Your task to perform on an android device: Toggle the flashlight Image 0: 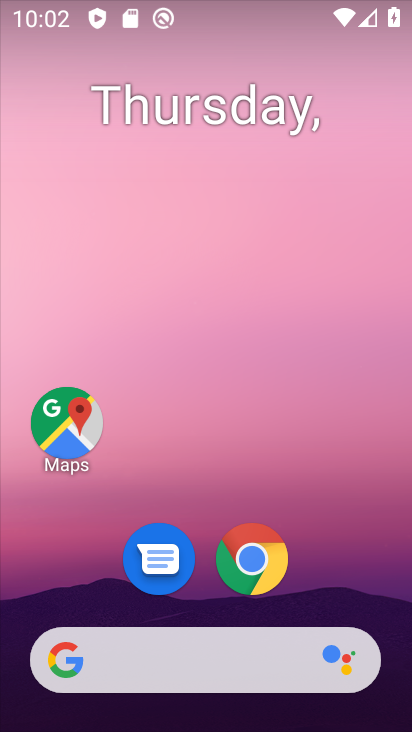
Step 0: drag from (261, 705) to (360, 24)
Your task to perform on an android device: Toggle the flashlight Image 1: 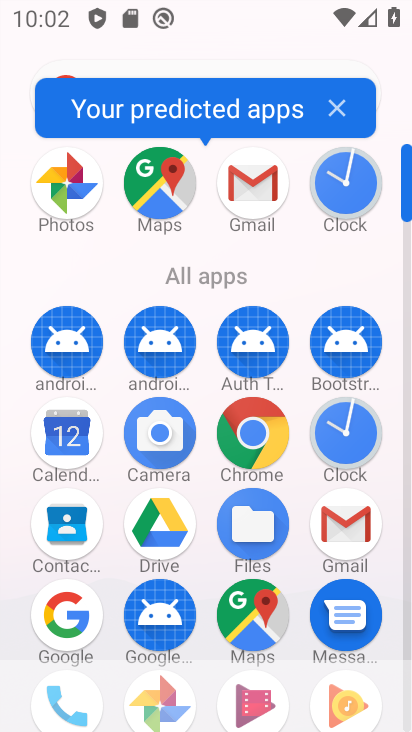
Step 1: drag from (120, 561) to (217, 288)
Your task to perform on an android device: Toggle the flashlight Image 2: 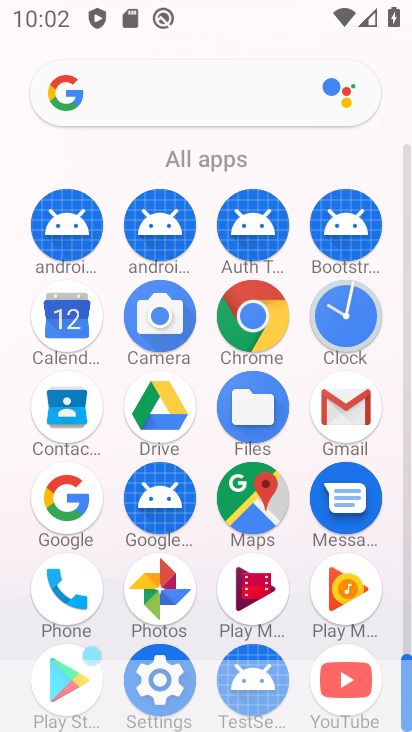
Step 2: click (171, 651)
Your task to perform on an android device: Toggle the flashlight Image 3: 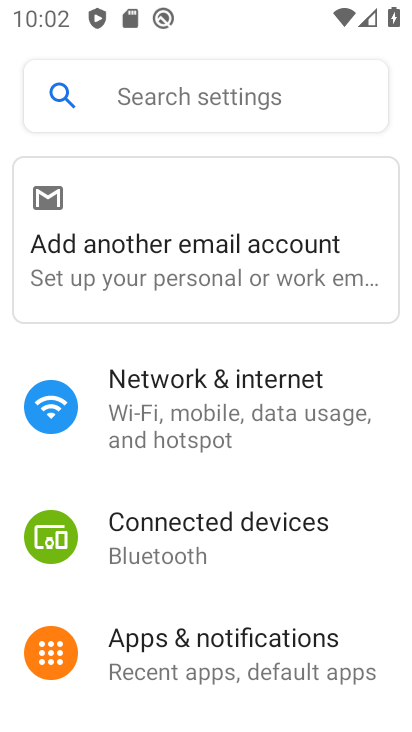
Step 3: click (216, 117)
Your task to perform on an android device: Toggle the flashlight Image 4: 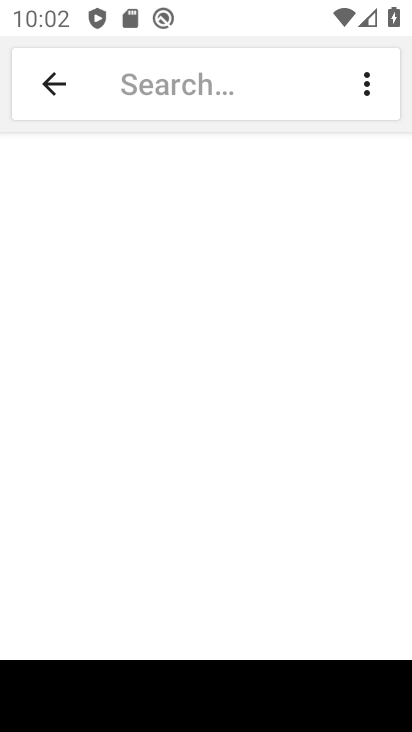
Step 4: drag from (397, 693) to (411, 619)
Your task to perform on an android device: Toggle the flashlight Image 5: 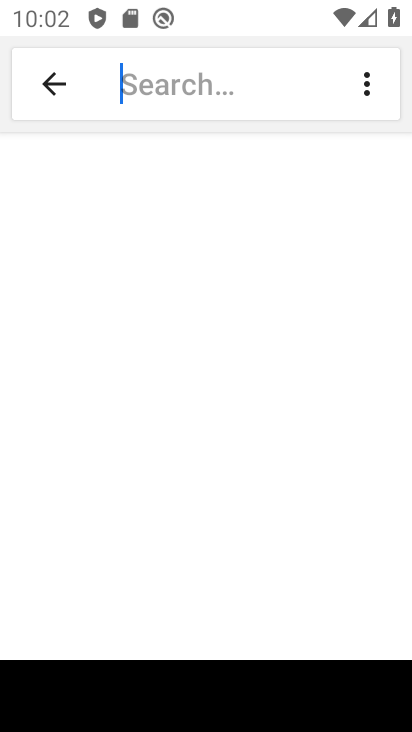
Step 5: drag from (388, 696) to (379, 558)
Your task to perform on an android device: Toggle the flashlight Image 6: 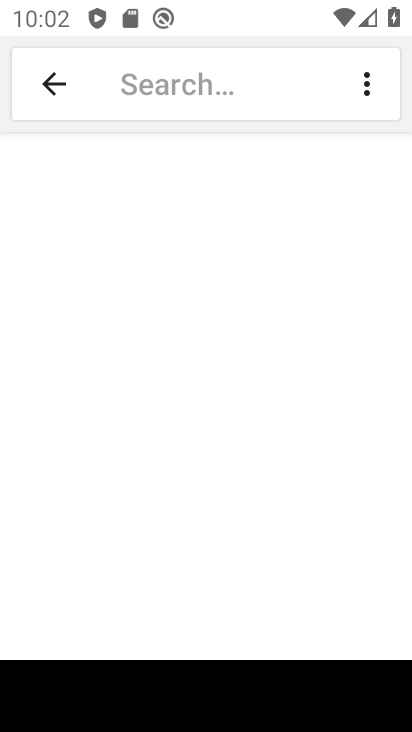
Step 6: click (392, 700)
Your task to perform on an android device: Toggle the flashlight Image 7: 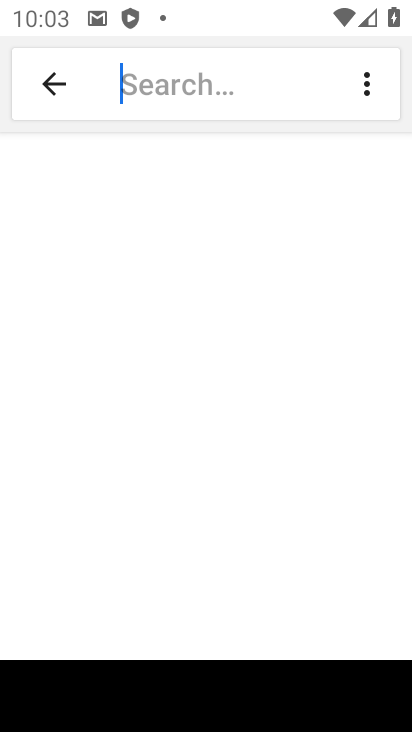
Step 7: click (164, 70)
Your task to perform on an android device: Toggle the flashlight Image 8: 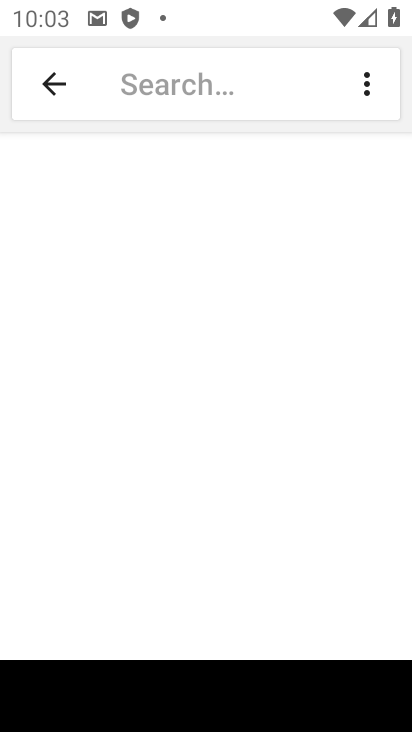
Step 8: drag from (386, 709) to (379, 535)
Your task to perform on an android device: Toggle the flashlight Image 9: 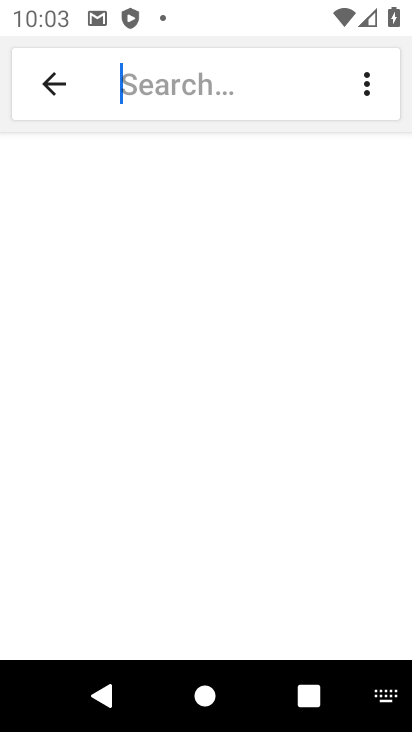
Step 9: click (383, 699)
Your task to perform on an android device: Toggle the flashlight Image 10: 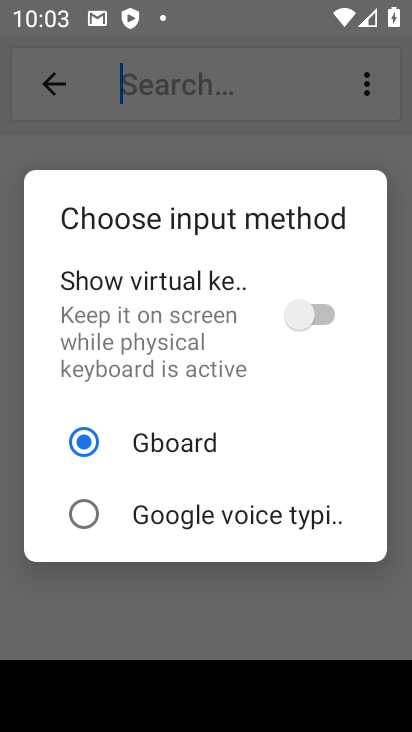
Step 10: click (323, 313)
Your task to perform on an android device: Toggle the flashlight Image 11: 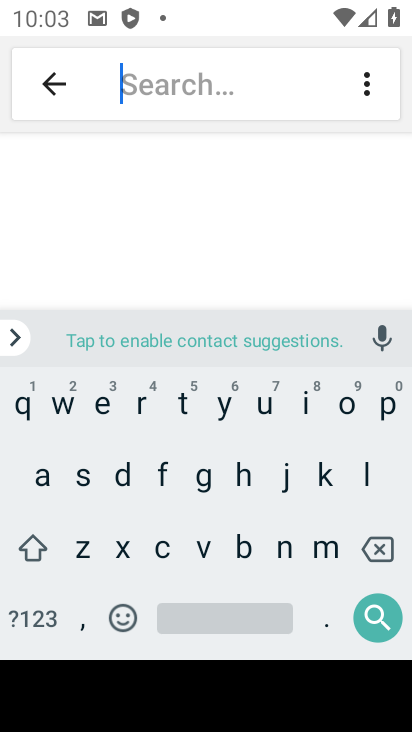
Step 11: click (160, 462)
Your task to perform on an android device: Toggle the flashlight Image 12: 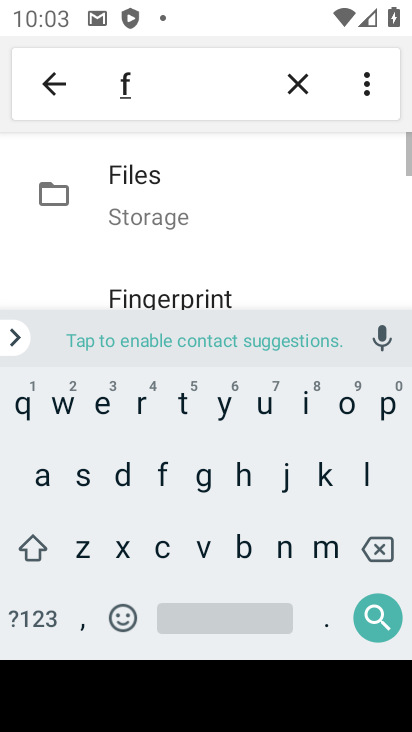
Step 12: click (364, 474)
Your task to perform on an android device: Toggle the flashlight Image 13: 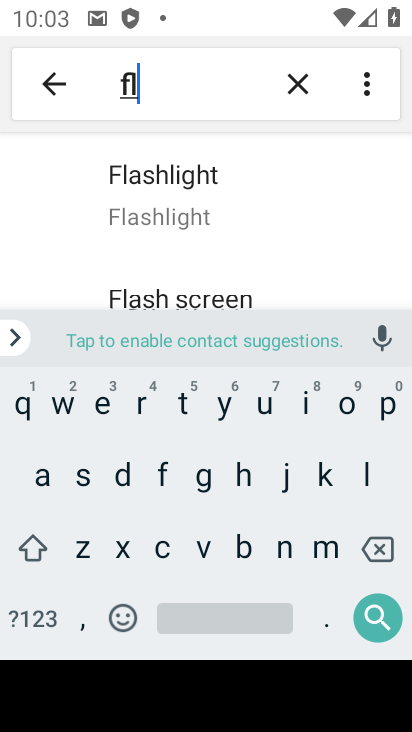
Step 13: click (170, 220)
Your task to perform on an android device: Toggle the flashlight Image 14: 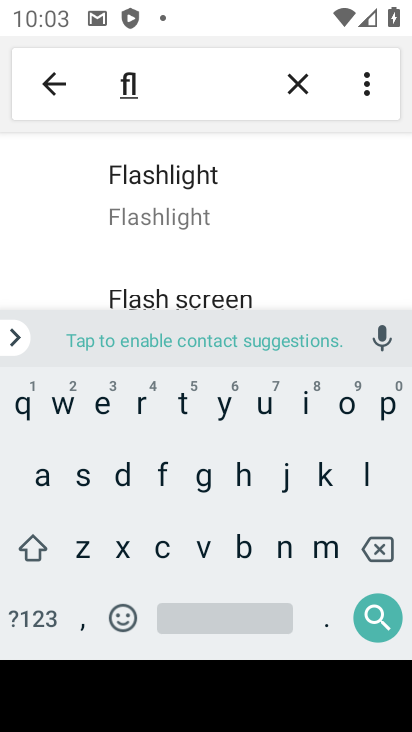
Step 14: click (170, 220)
Your task to perform on an android device: Toggle the flashlight Image 15: 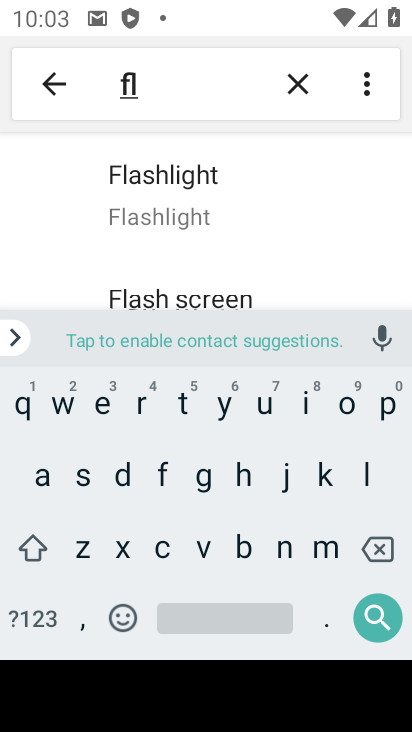
Step 15: task complete